Your task to perform on an android device: set default search engine in the chrome app Image 0: 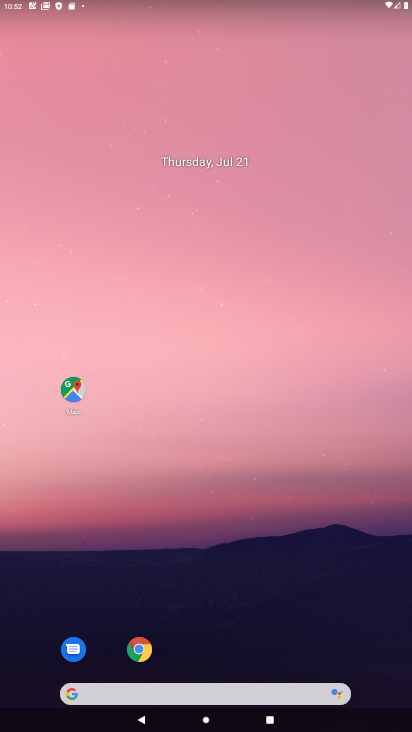
Step 0: click (148, 643)
Your task to perform on an android device: set default search engine in the chrome app Image 1: 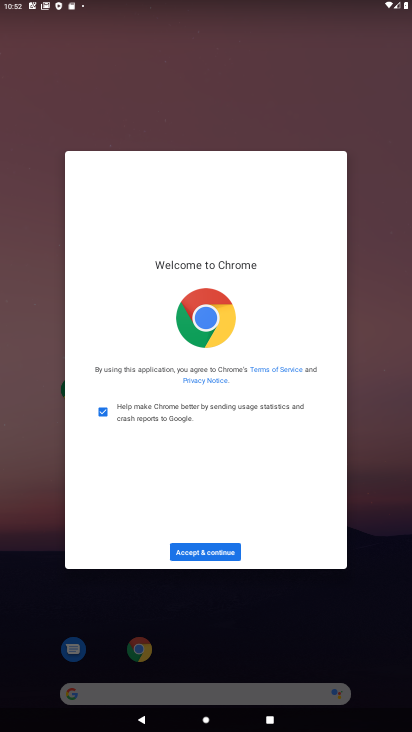
Step 1: click (217, 566)
Your task to perform on an android device: set default search engine in the chrome app Image 2: 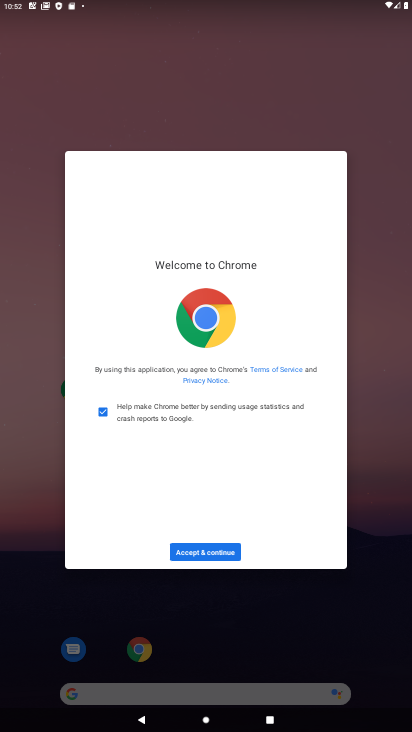
Step 2: click (217, 553)
Your task to perform on an android device: set default search engine in the chrome app Image 3: 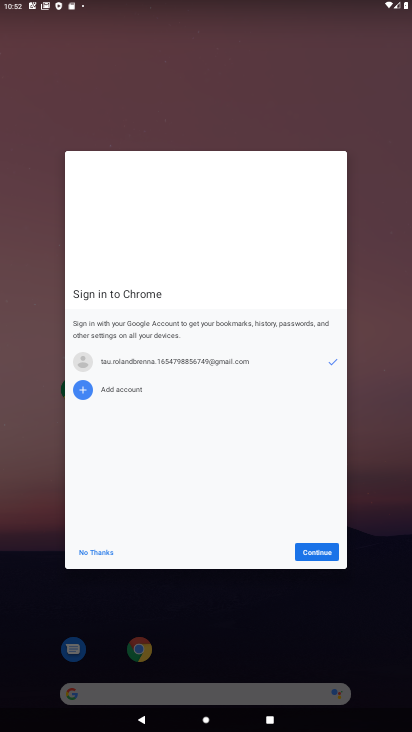
Step 3: click (320, 552)
Your task to perform on an android device: set default search engine in the chrome app Image 4: 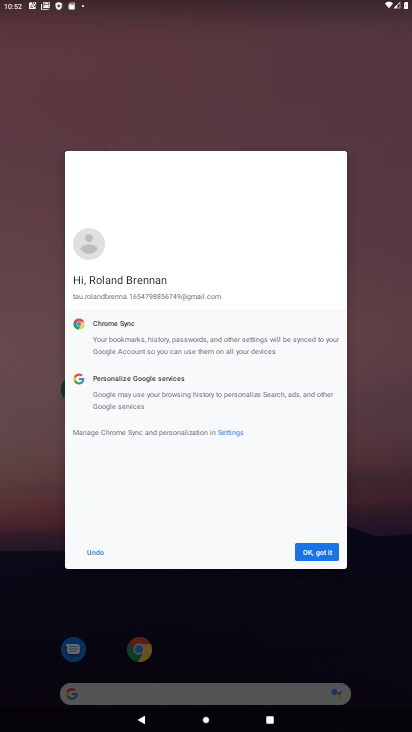
Step 4: click (320, 552)
Your task to perform on an android device: set default search engine in the chrome app Image 5: 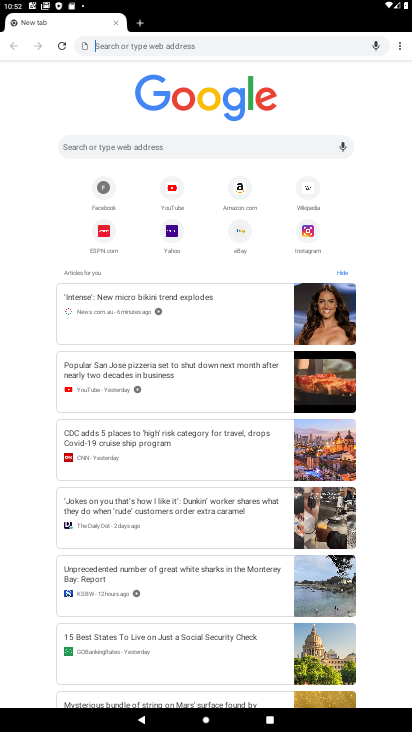
Step 5: click (393, 49)
Your task to perform on an android device: set default search engine in the chrome app Image 6: 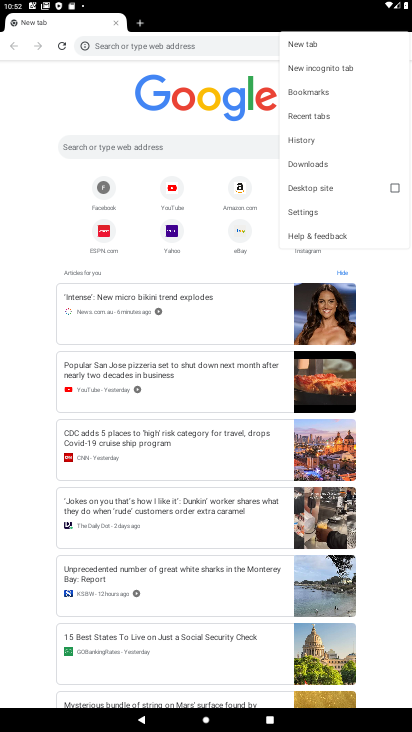
Step 6: click (313, 205)
Your task to perform on an android device: set default search engine in the chrome app Image 7: 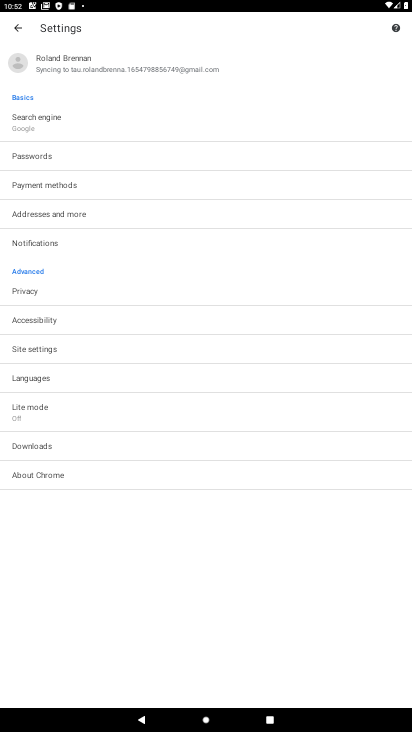
Step 7: click (117, 115)
Your task to perform on an android device: set default search engine in the chrome app Image 8: 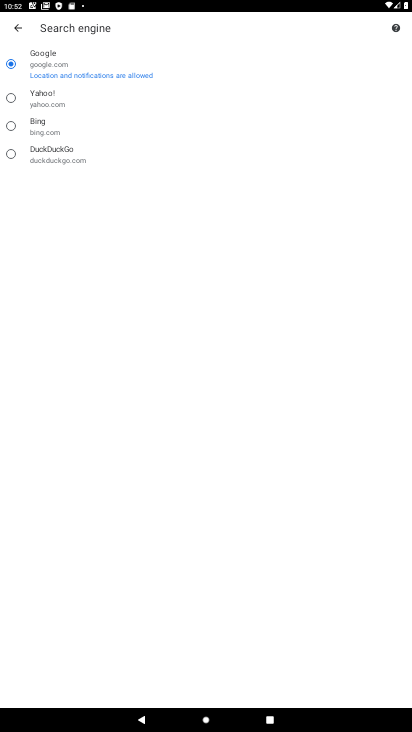
Step 8: click (75, 104)
Your task to perform on an android device: set default search engine in the chrome app Image 9: 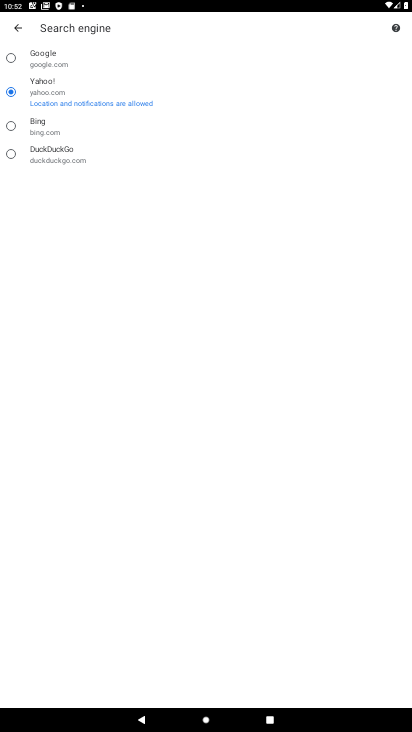
Step 9: task complete